Your task to perform on an android device: toggle sleep mode Image 0: 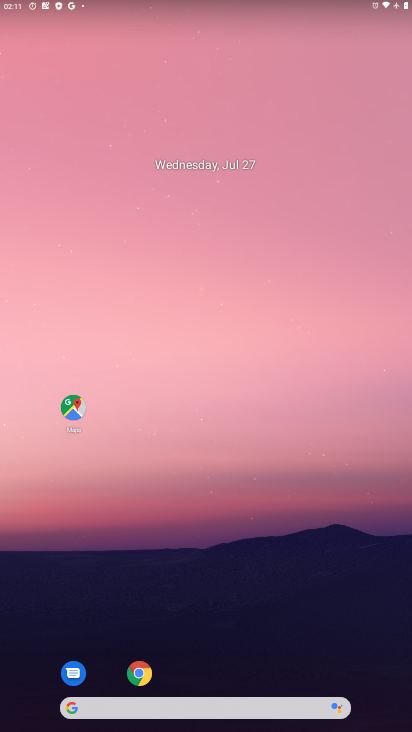
Step 0: drag from (222, 610) to (215, 29)
Your task to perform on an android device: toggle sleep mode Image 1: 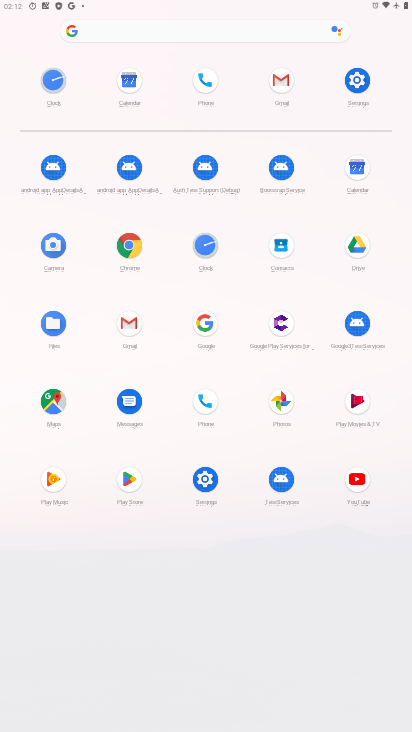
Step 1: click (356, 82)
Your task to perform on an android device: toggle sleep mode Image 2: 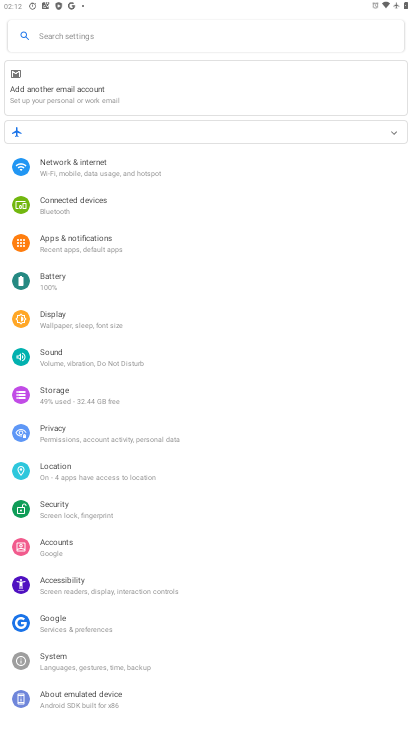
Step 2: click (64, 319)
Your task to perform on an android device: toggle sleep mode Image 3: 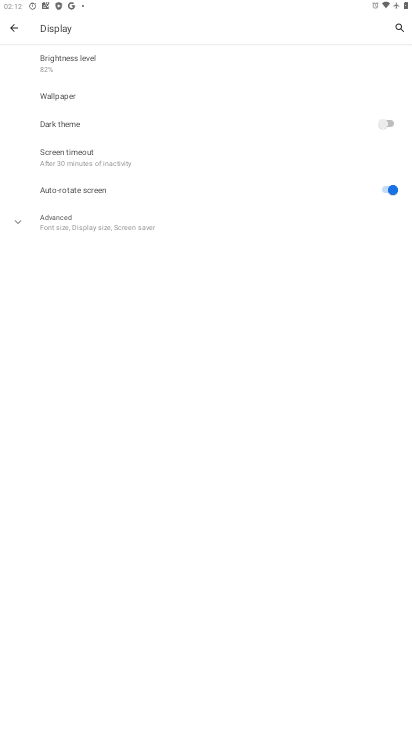
Step 3: click (19, 230)
Your task to perform on an android device: toggle sleep mode Image 4: 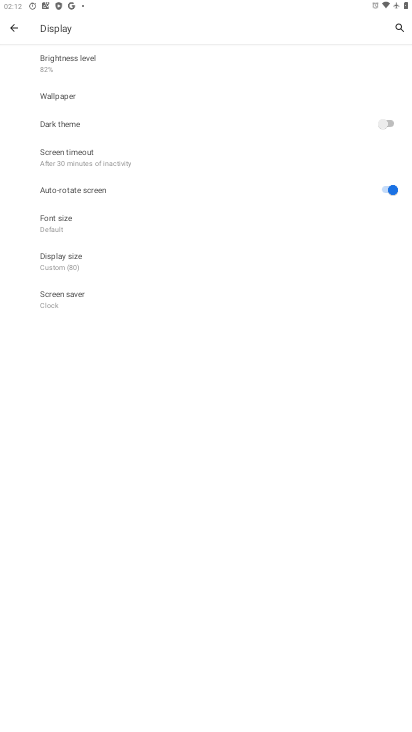
Step 4: task complete